Your task to perform on an android device: Open Yahoo.com Image 0: 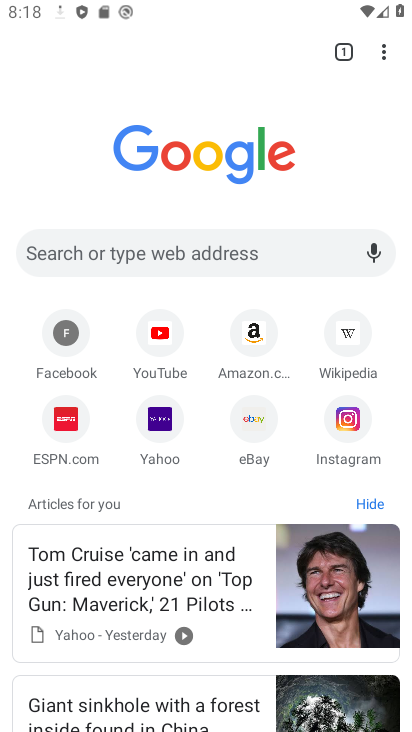
Step 0: click (146, 423)
Your task to perform on an android device: Open Yahoo.com Image 1: 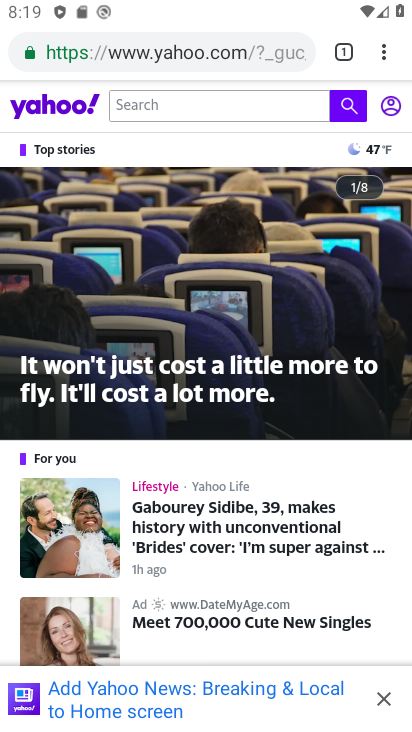
Step 1: task complete